Your task to perform on an android device: Go to display settings Image 0: 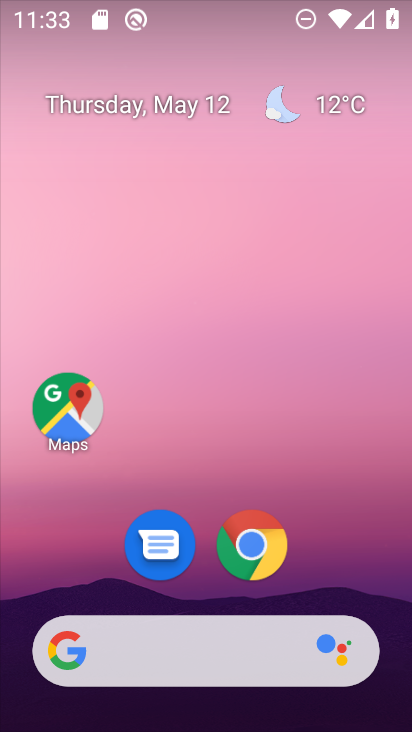
Step 0: drag from (205, 590) to (212, 139)
Your task to perform on an android device: Go to display settings Image 1: 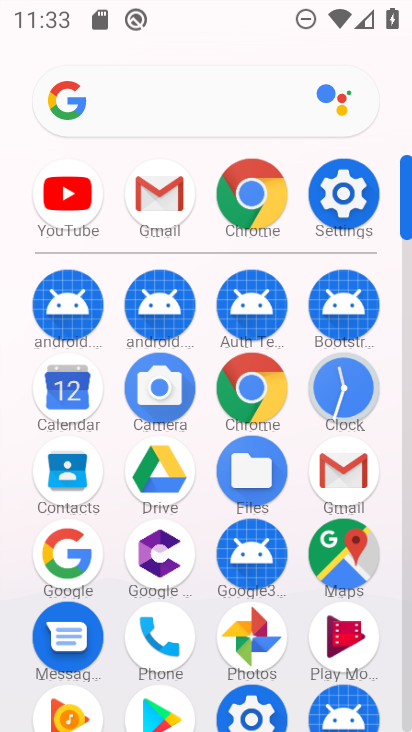
Step 1: click (340, 186)
Your task to perform on an android device: Go to display settings Image 2: 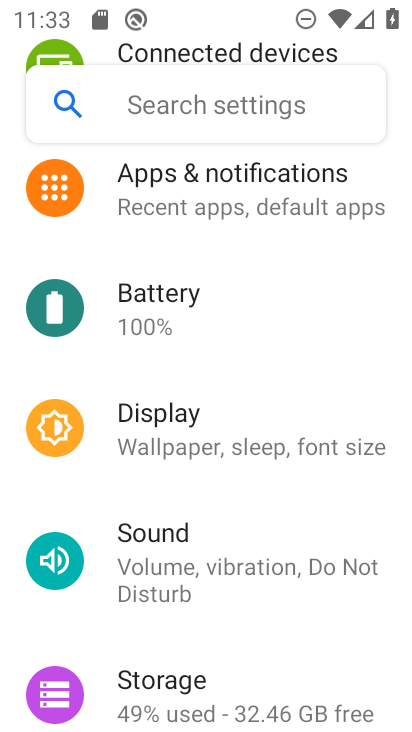
Step 2: click (217, 409)
Your task to perform on an android device: Go to display settings Image 3: 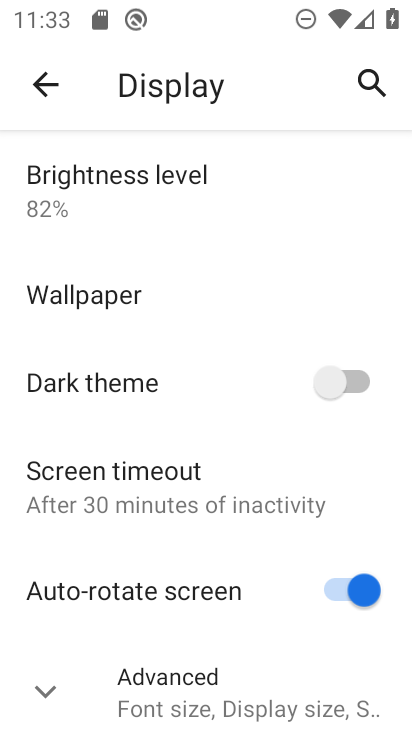
Step 3: click (40, 681)
Your task to perform on an android device: Go to display settings Image 4: 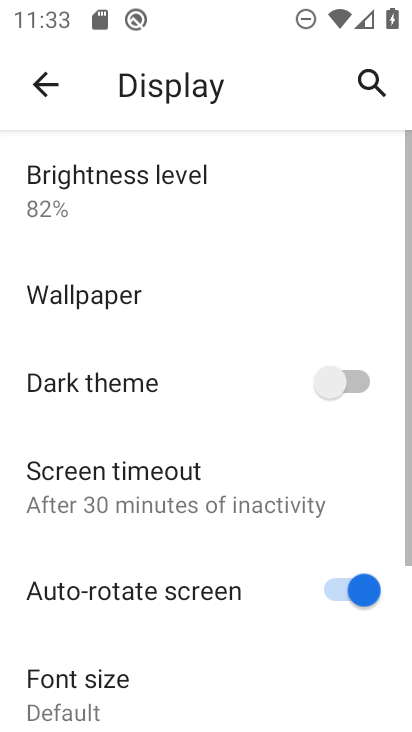
Step 4: task complete